Your task to perform on an android device: change notification settings in the gmail app Image 0: 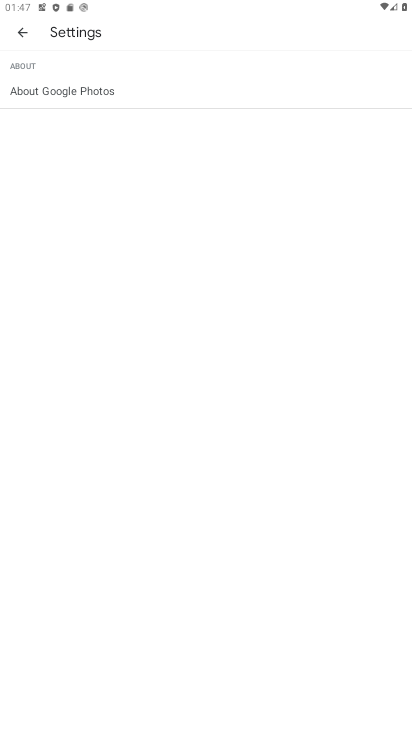
Step 0: press home button
Your task to perform on an android device: change notification settings in the gmail app Image 1: 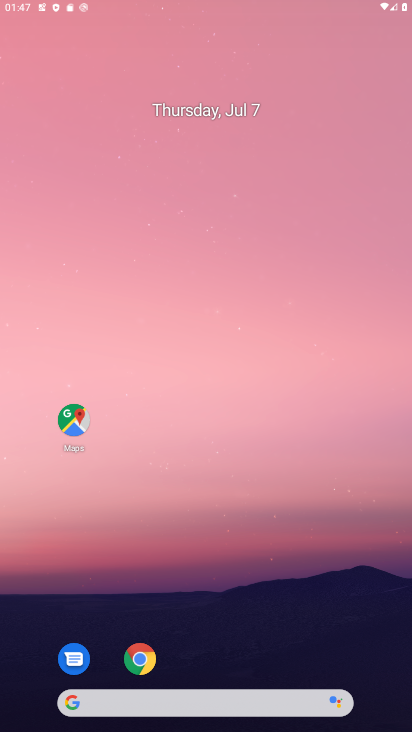
Step 1: drag from (181, 556) to (196, 63)
Your task to perform on an android device: change notification settings in the gmail app Image 2: 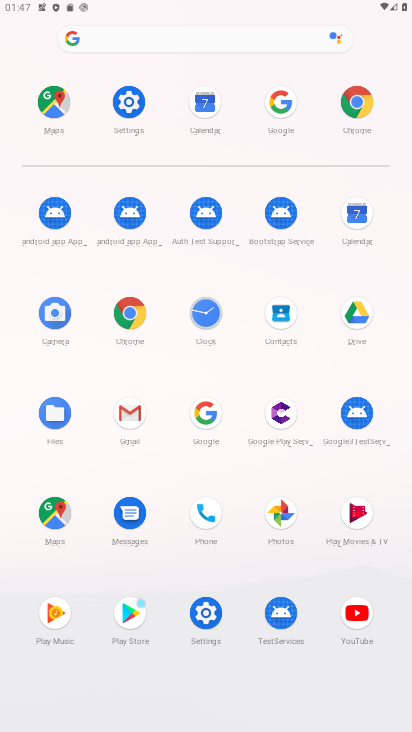
Step 2: click (127, 406)
Your task to perform on an android device: change notification settings in the gmail app Image 3: 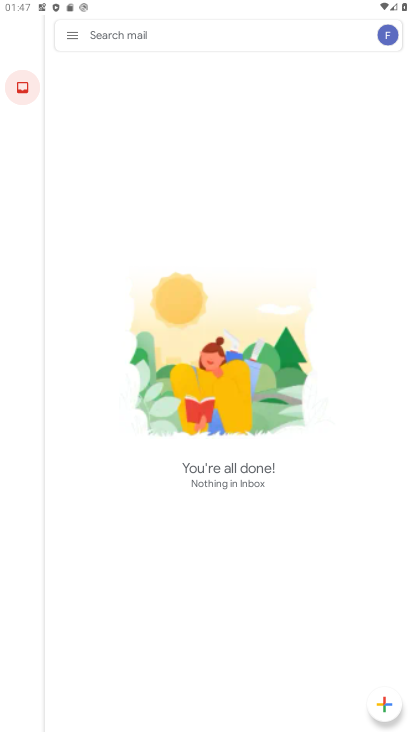
Step 3: click (71, 35)
Your task to perform on an android device: change notification settings in the gmail app Image 4: 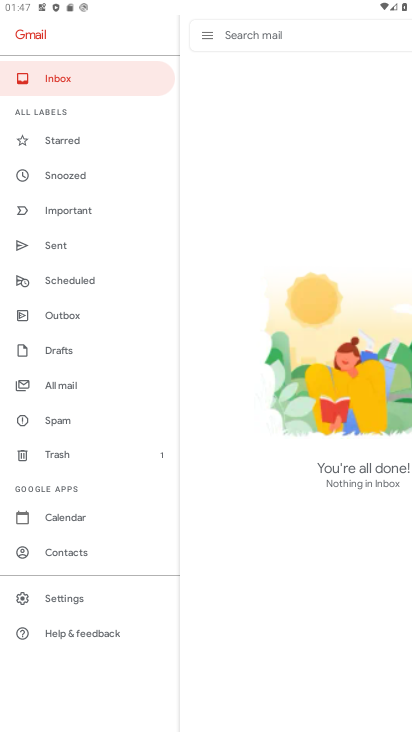
Step 4: click (88, 592)
Your task to perform on an android device: change notification settings in the gmail app Image 5: 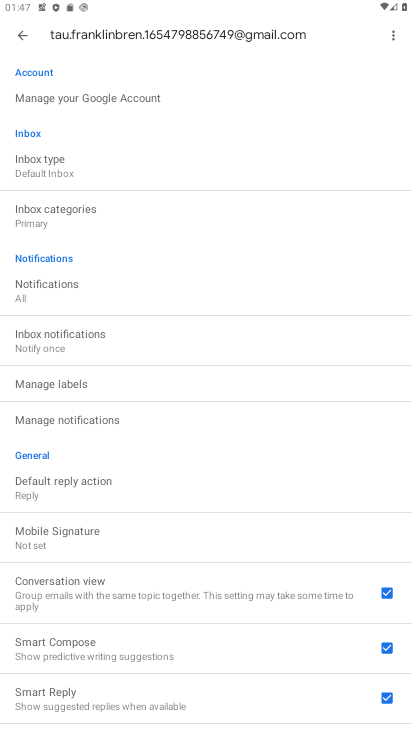
Step 5: click (40, 276)
Your task to perform on an android device: change notification settings in the gmail app Image 6: 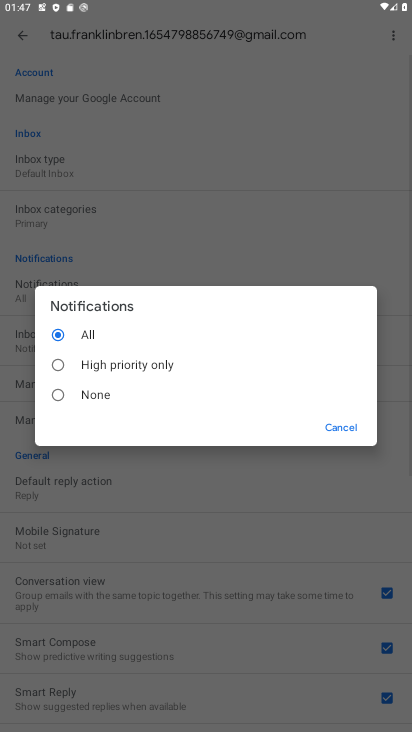
Step 6: click (56, 401)
Your task to perform on an android device: change notification settings in the gmail app Image 7: 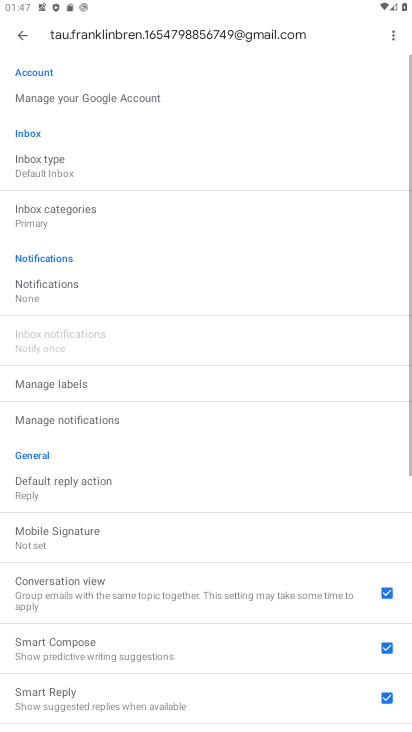
Step 7: task complete